Your task to perform on an android device: move an email to a new category in the gmail app Image 0: 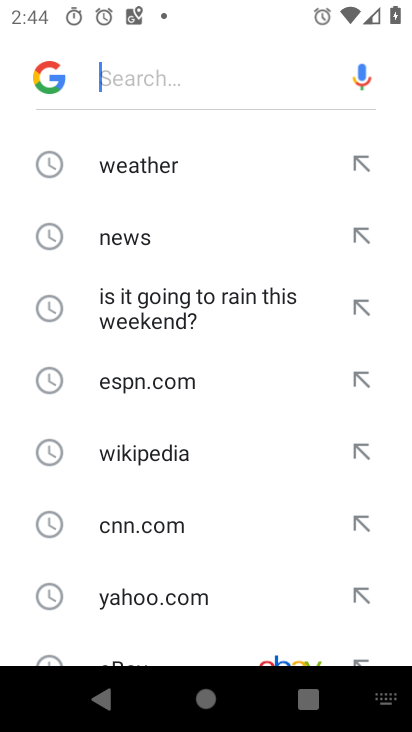
Step 0: press home button
Your task to perform on an android device: move an email to a new category in the gmail app Image 1: 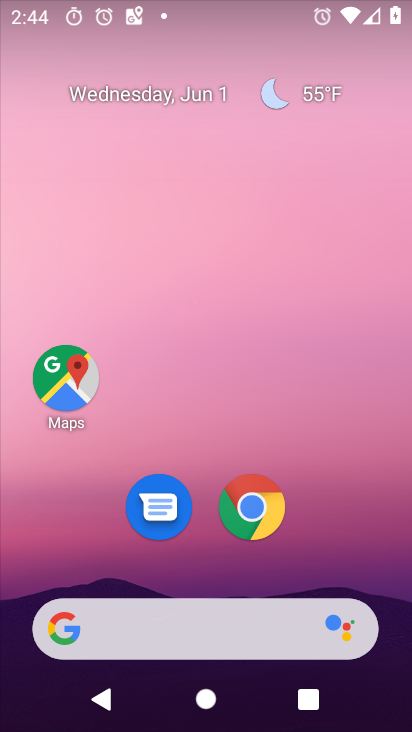
Step 1: drag from (331, 572) to (297, 27)
Your task to perform on an android device: move an email to a new category in the gmail app Image 2: 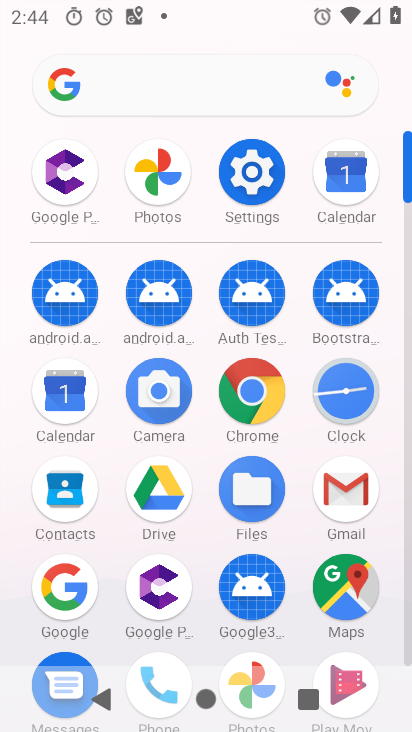
Step 2: click (328, 493)
Your task to perform on an android device: move an email to a new category in the gmail app Image 3: 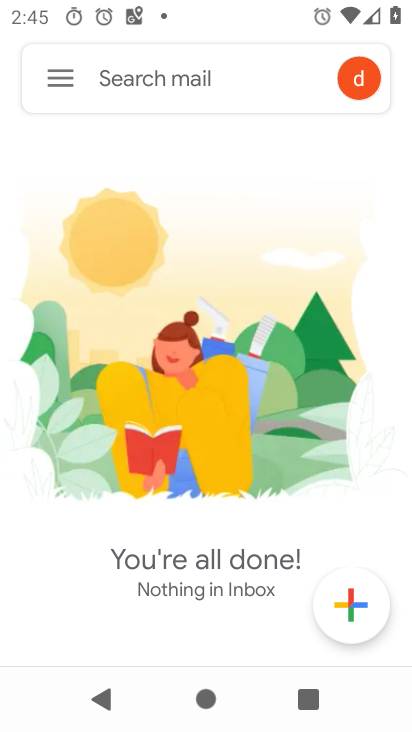
Step 3: click (53, 72)
Your task to perform on an android device: move an email to a new category in the gmail app Image 4: 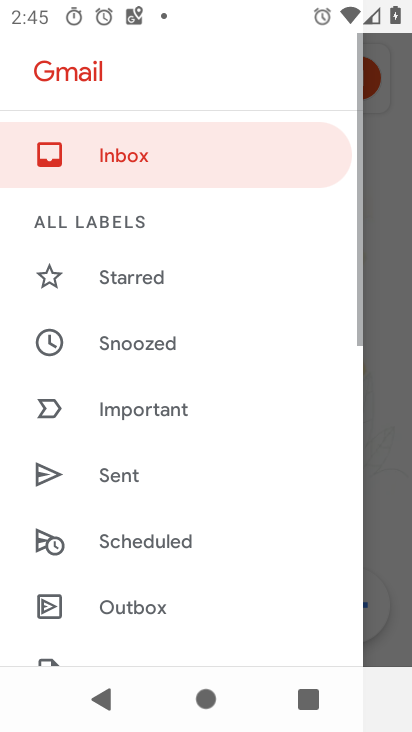
Step 4: drag from (247, 582) to (255, 303)
Your task to perform on an android device: move an email to a new category in the gmail app Image 5: 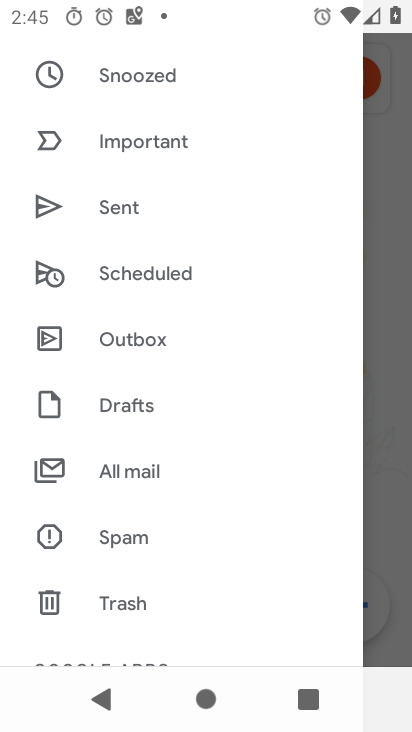
Step 5: click (130, 471)
Your task to perform on an android device: move an email to a new category in the gmail app Image 6: 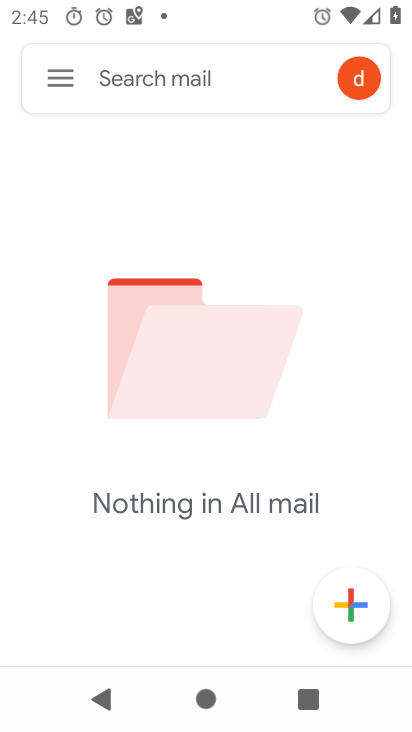
Step 6: task complete